Your task to perform on an android device: toggle sleep mode Image 0: 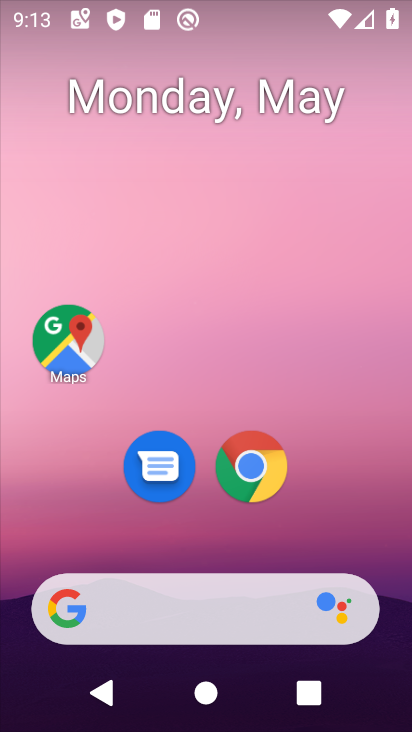
Step 0: drag from (226, 474) to (255, 40)
Your task to perform on an android device: toggle sleep mode Image 1: 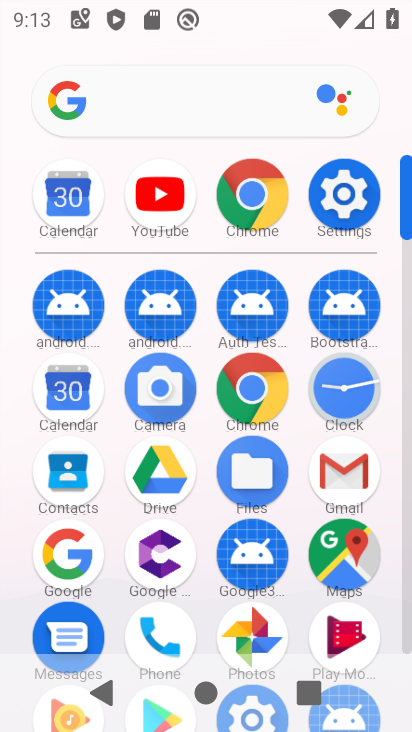
Step 1: click (326, 212)
Your task to perform on an android device: toggle sleep mode Image 2: 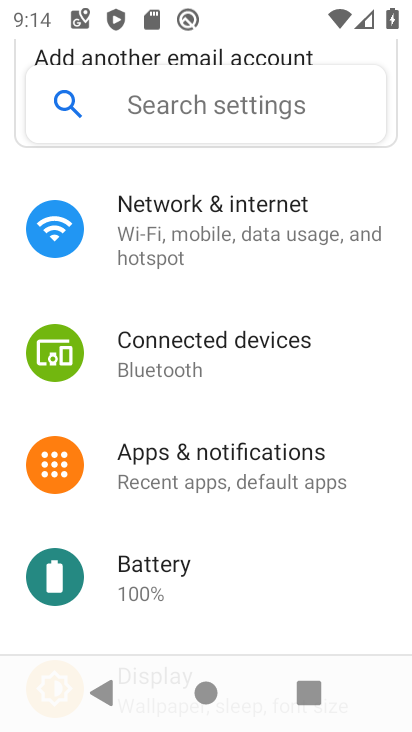
Step 2: click (160, 115)
Your task to perform on an android device: toggle sleep mode Image 3: 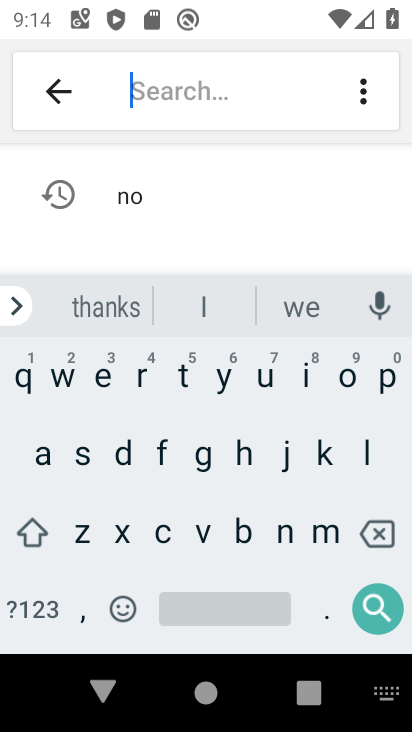
Step 3: click (88, 452)
Your task to perform on an android device: toggle sleep mode Image 4: 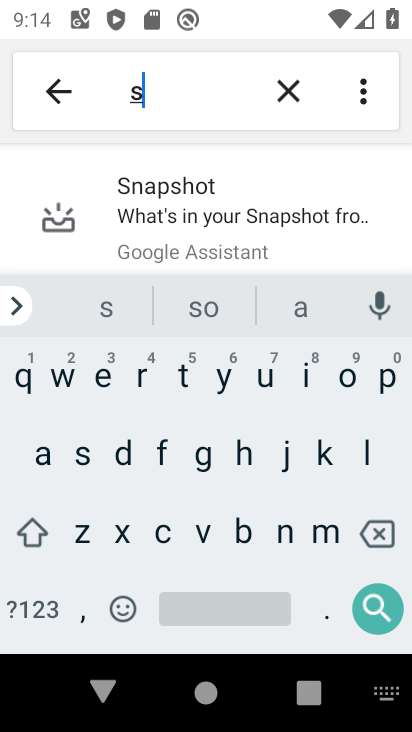
Step 4: click (368, 451)
Your task to perform on an android device: toggle sleep mode Image 5: 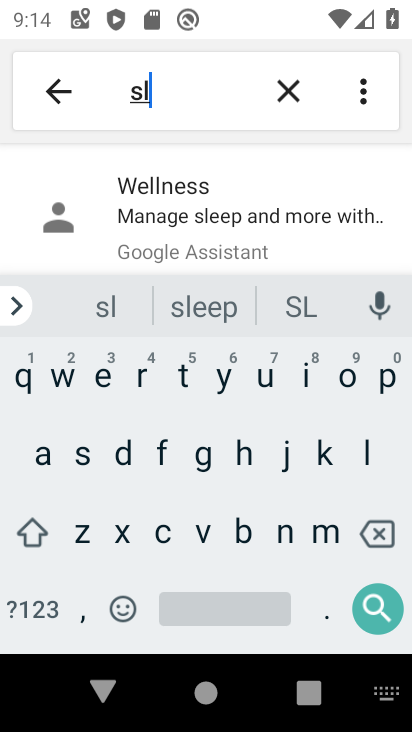
Step 5: click (164, 198)
Your task to perform on an android device: toggle sleep mode Image 6: 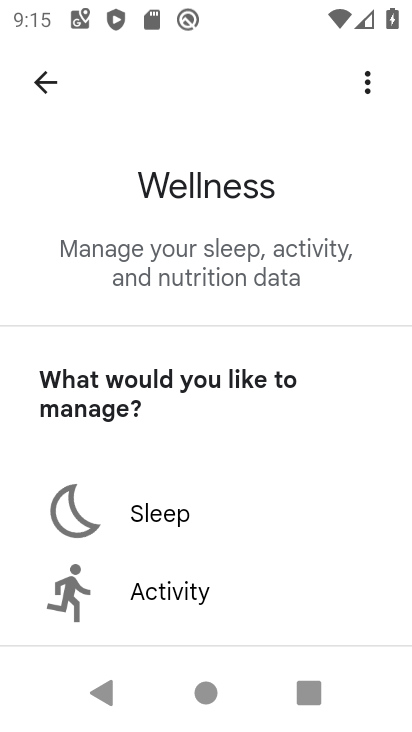
Step 6: click (166, 519)
Your task to perform on an android device: toggle sleep mode Image 7: 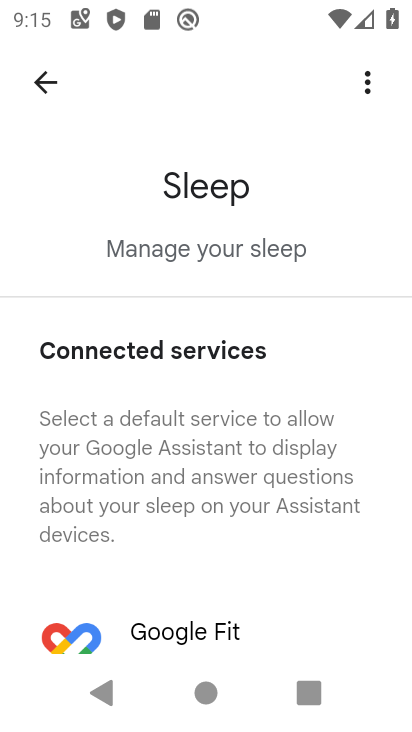
Step 7: task complete